Your task to perform on an android device: Go to eBay Image 0: 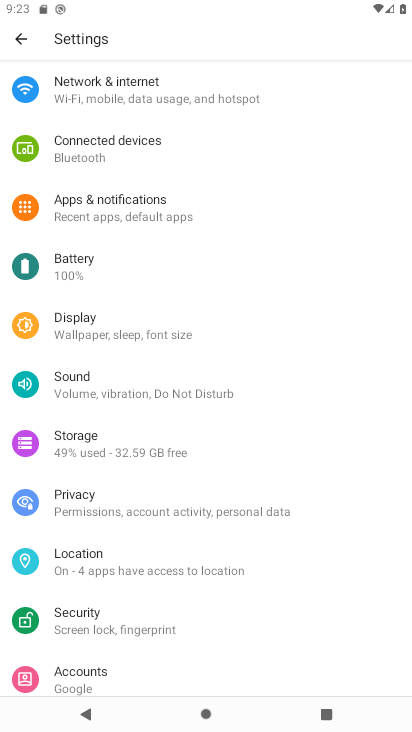
Step 0: press home button
Your task to perform on an android device: Go to eBay Image 1: 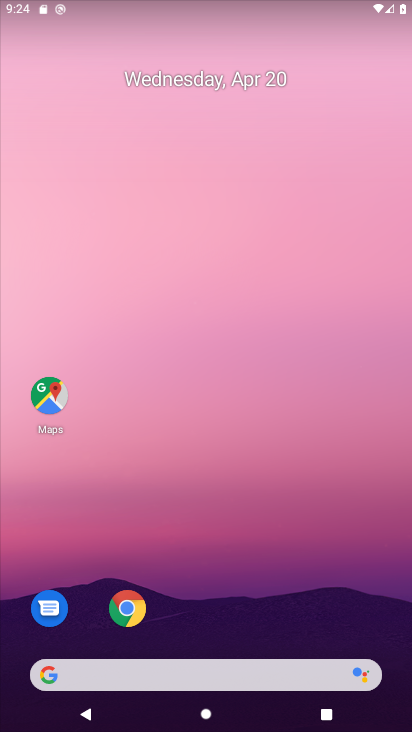
Step 1: click (130, 604)
Your task to perform on an android device: Go to eBay Image 2: 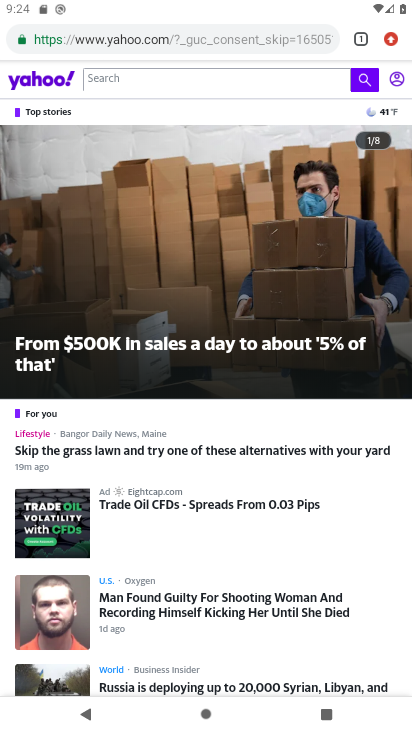
Step 2: click (201, 35)
Your task to perform on an android device: Go to eBay Image 3: 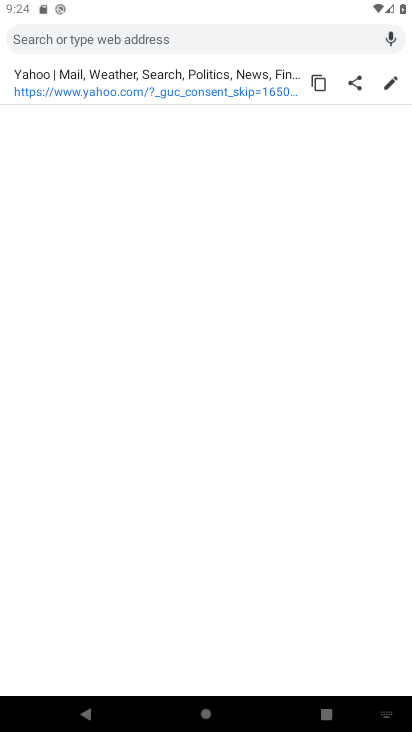
Step 3: type "eBay"
Your task to perform on an android device: Go to eBay Image 4: 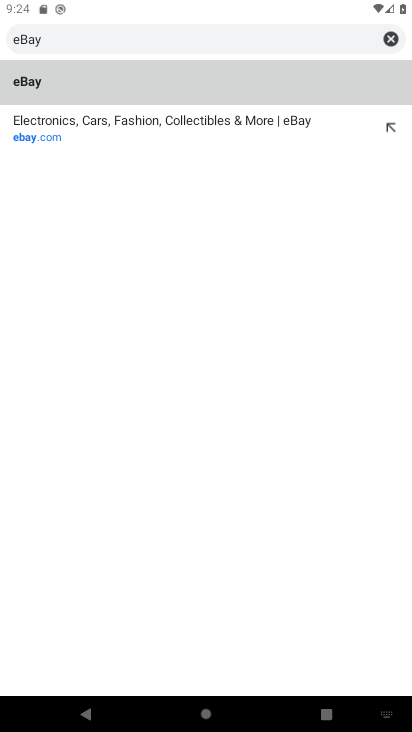
Step 4: click (61, 79)
Your task to perform on an android device: Go to eBay Image 5: 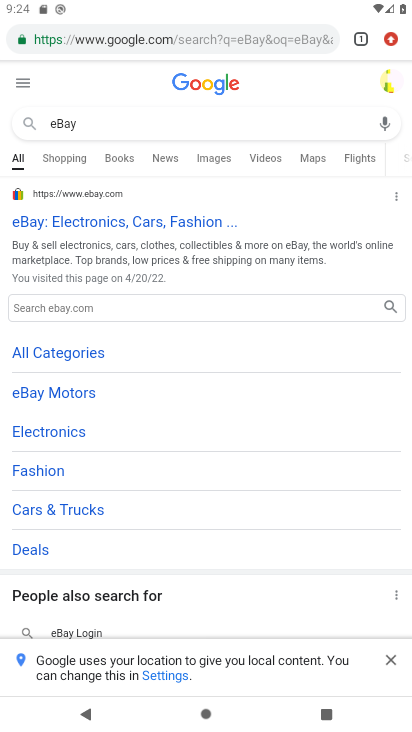
Step 5: task complete